Your task to perform on an android device: turn on wifi Image 0: 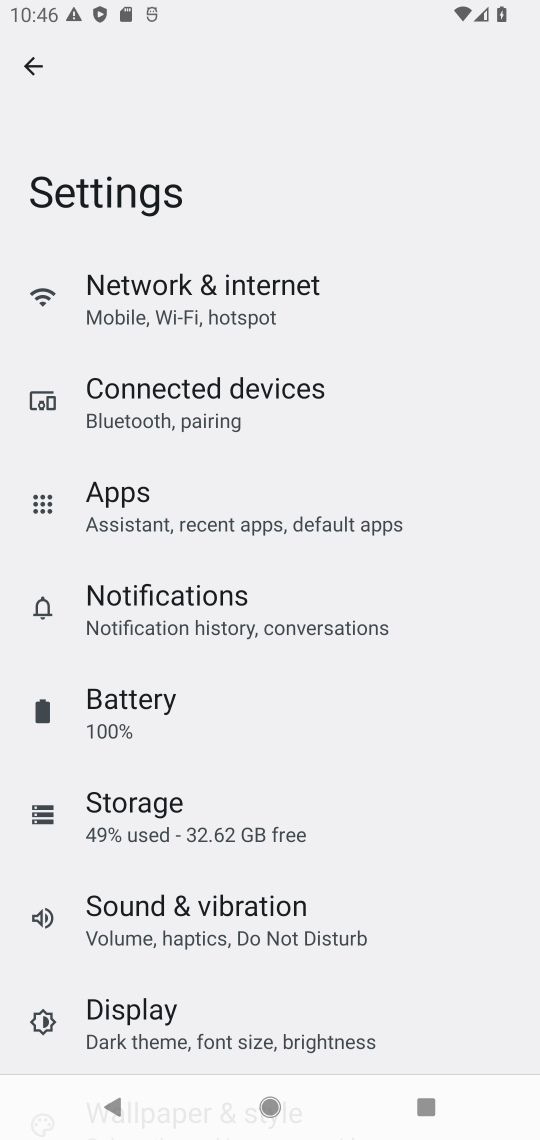
Step 0: press home button
Your task to perform on an android device: turn on wifi Image 1: 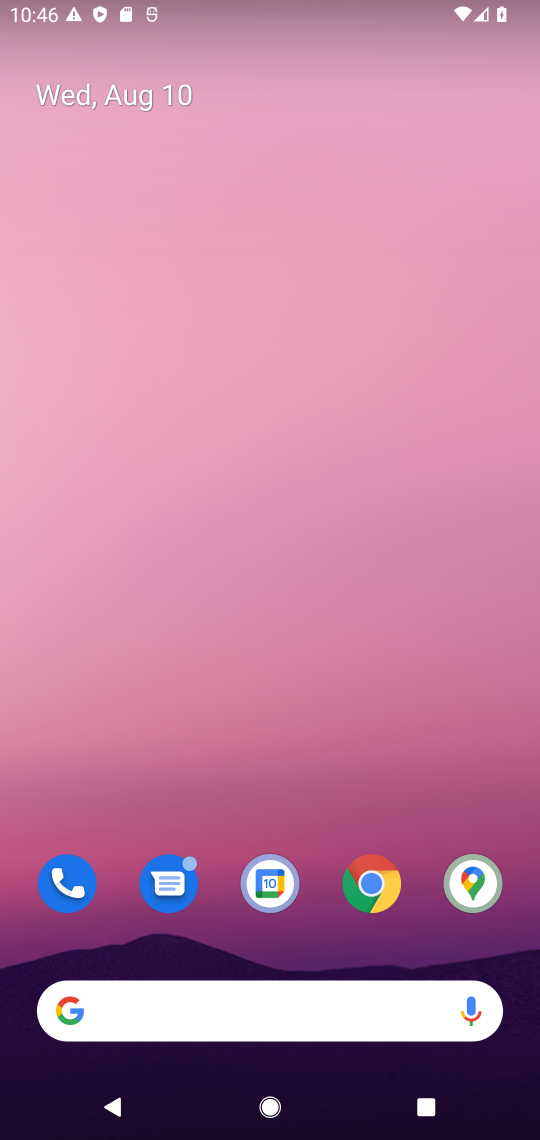
Step 1: drag from (333, 942) to (251, 814)
Your task to perform on an android device: turn on wifi Image 2: 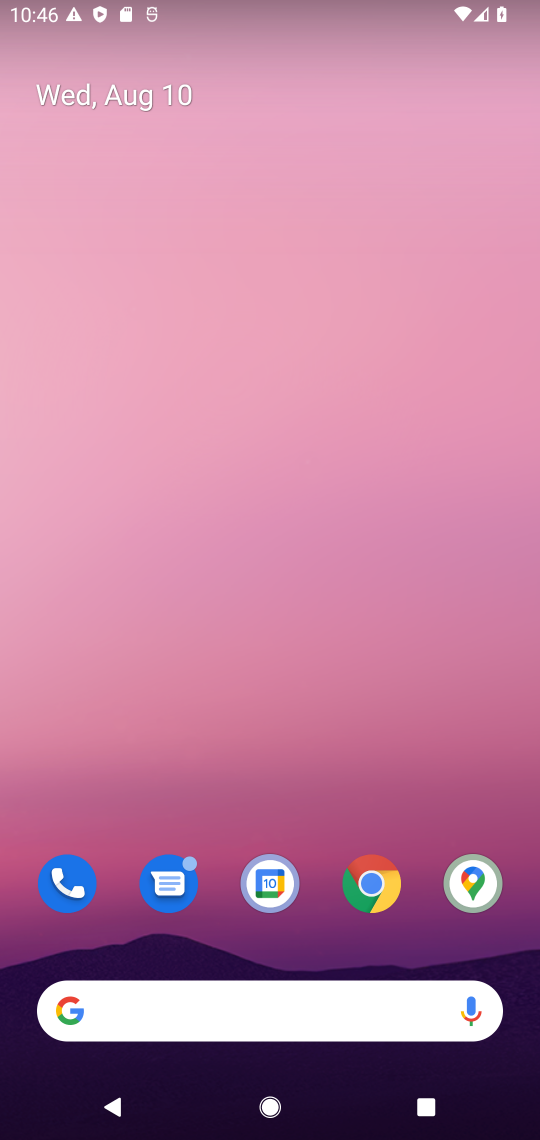
Step 2: drag from (155, 4) to (218, 688)
Your task to perform on an android device: turn on wifi Image 3: 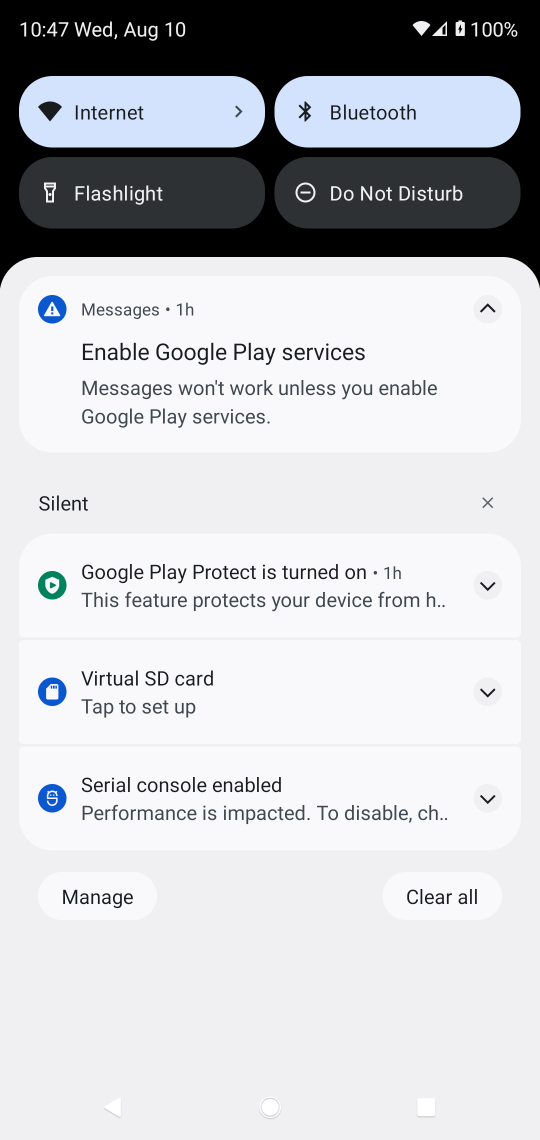
Step 3: click (103, 122)
Your task to perform on an android device: turn on wifi Image 4: 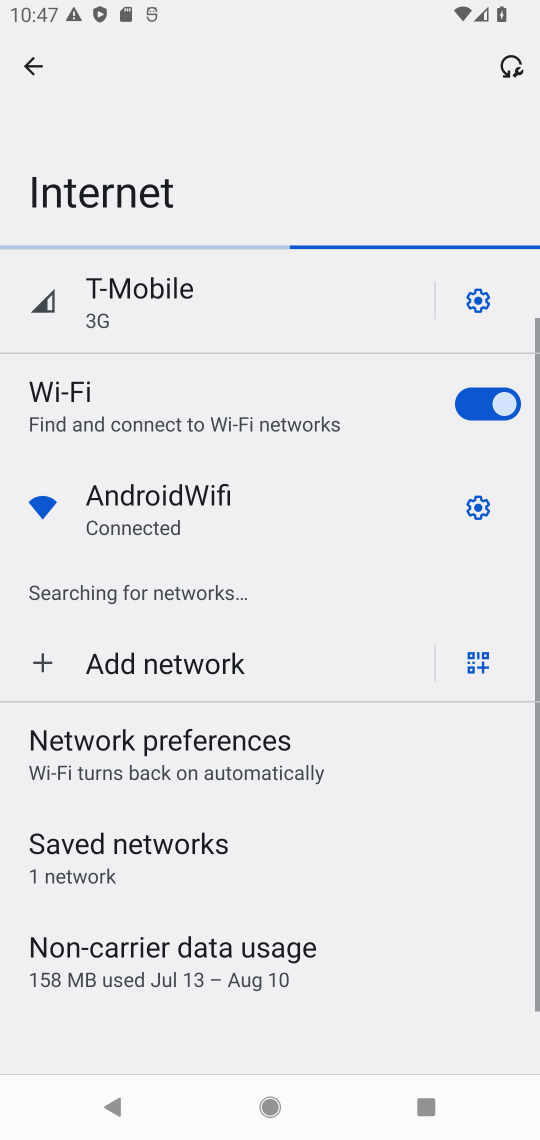
Step 4: task complete